Your task to perform on an android device: Open location settings Image 0: 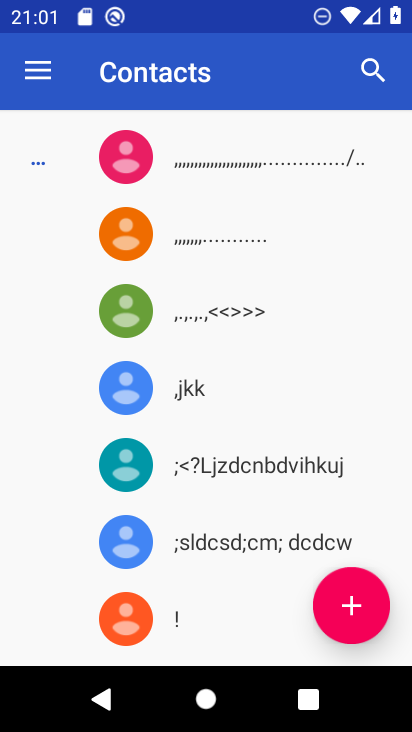
Step 0: press home button
Your task to perform on an android device: Open location settings Image 1: 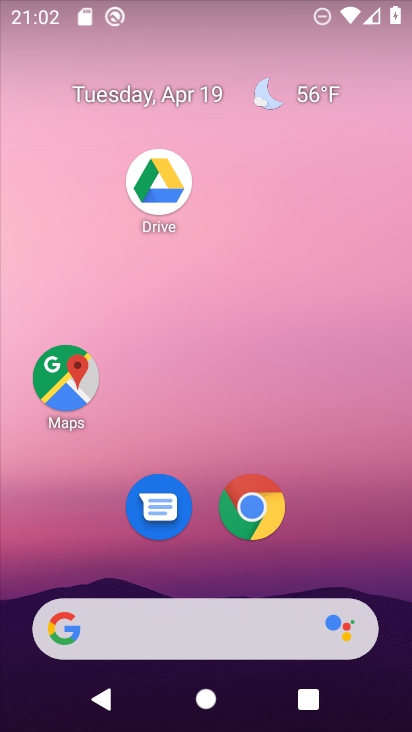
Step 1: drag from (323, 435) to (312, 142)
Your task to perform on an android device: Open location settings Image 2: 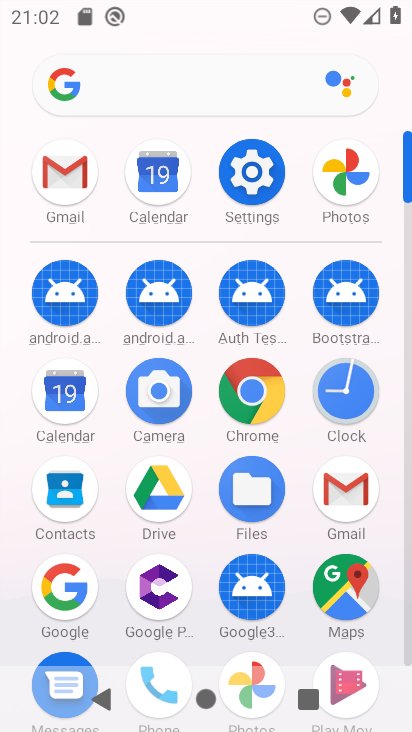
Step 2: click (271, 169)
Your task to perform on an android device: Open location settings Image 3: 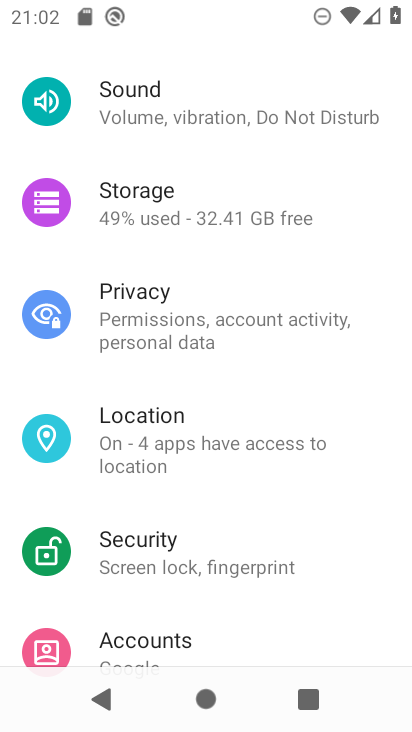
Step 3: click (220, 431)
Your task to perform on an android device: Open location settings Image 4: 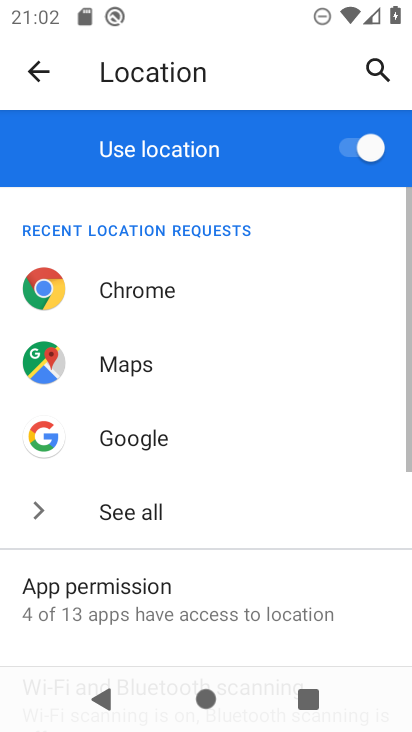
Step 4: task complete